Your task to perform on an android device: change timer sound Image 0: 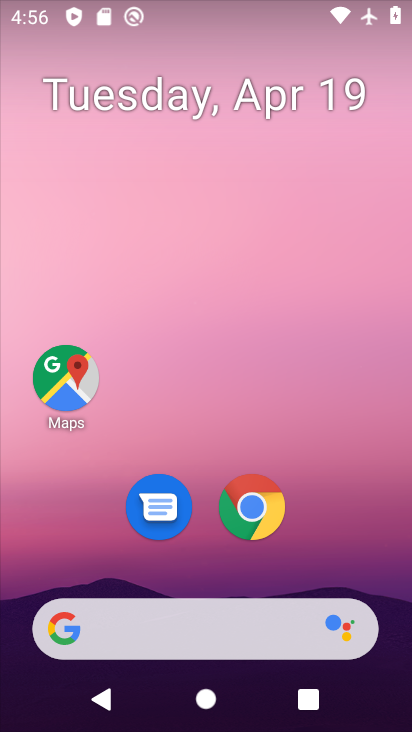
Step 0: drag from (326, 558) to (297, 125)
Your task to perform on an android device: change timer sound Image 1: 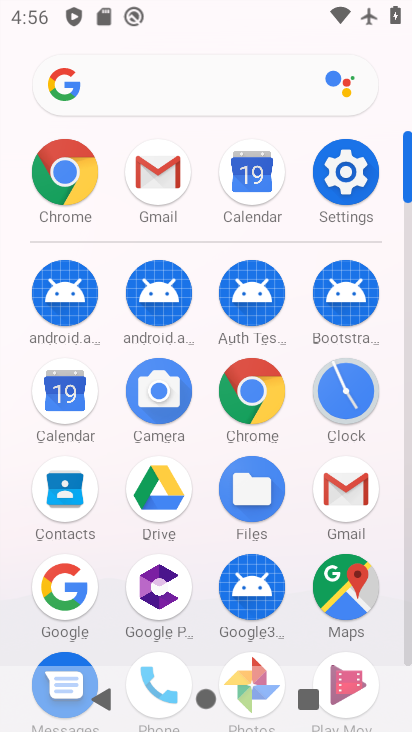
Step 1: click (330, 397)
Your task to perform on an android device: change timer sound Image 2: 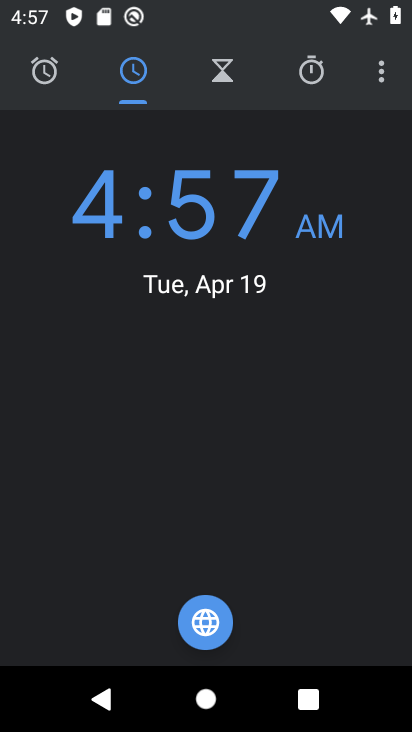
Step 2: click (378, 72)
Your task to perform on an android device: change timer sound Image 3: 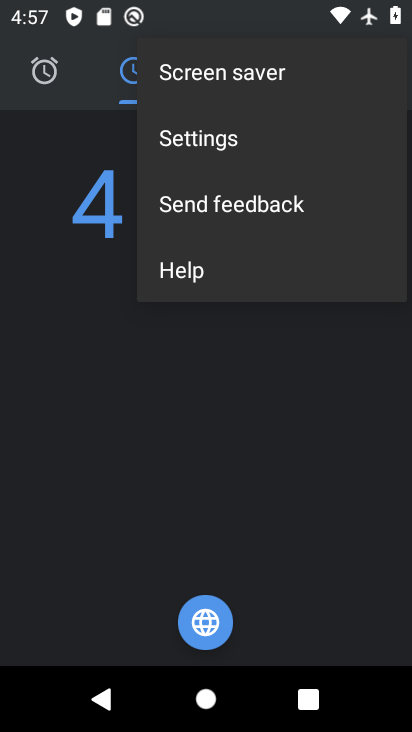
Step 3: click (197, 141)
Your task to perform on an android device: change timer sound Image 4: 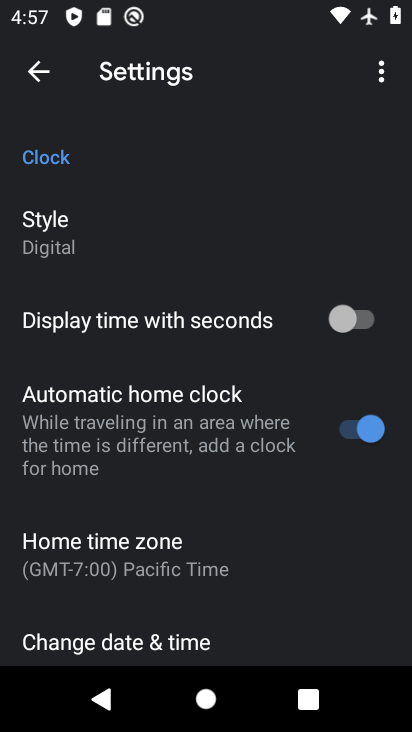
Step 4: drag from (244, 467) to (326, 121)
Your task to perform on an android device: change timer sound Image 5: 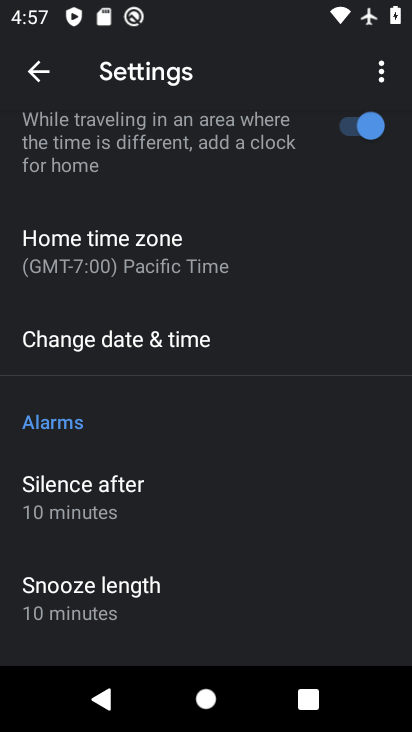
Step 5: drag from (188, 485) to (306, 235)
Your task to perform on an android device: change timer sound Image 6: 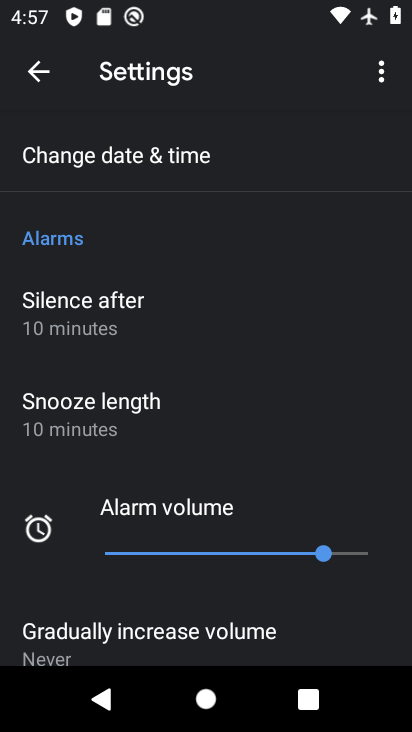
Step 6: drag from (226, 389) to (343, 176)
Your task to perform on an android device: change timer sound Image 7: 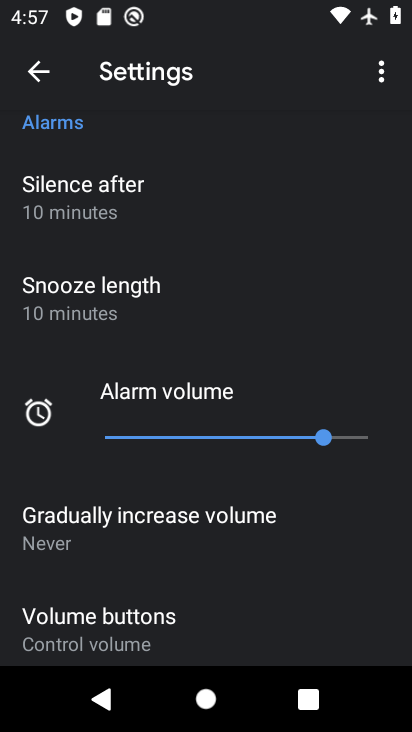
Step 7: drag from (254, 256) to (188, 460)
Your task to perform on an android device: change timer sound Image 8: 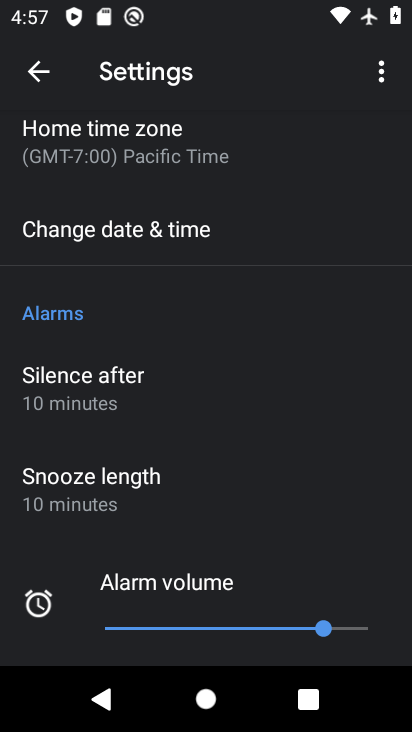
Step 8: drag from (201, 434) to (360, 121)
Your task to perform on an android device: change timer sound Image 9: 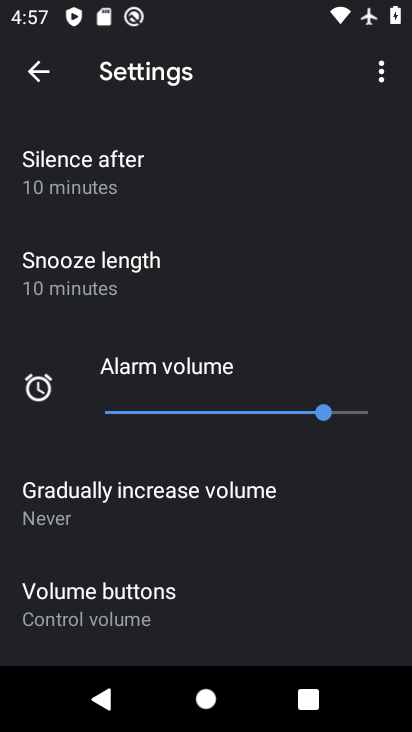
Step 9: drag from (201, 551) to (303, 190)
Your task to perform on an android device: change timer sound Image 10: 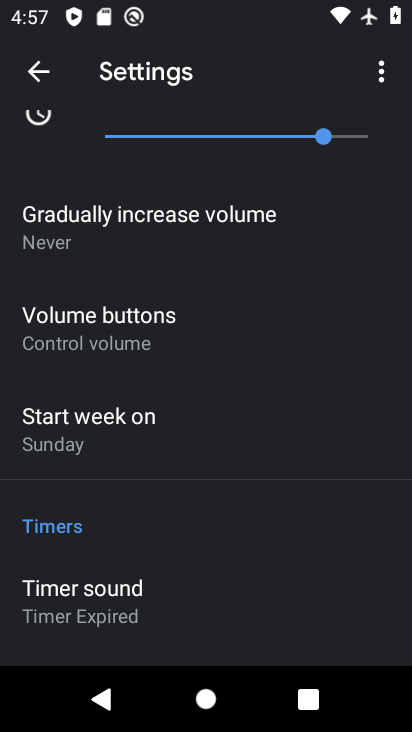
Step 10: click (109, 588)
Your task to perform on an android device: change timer sound Image 11: 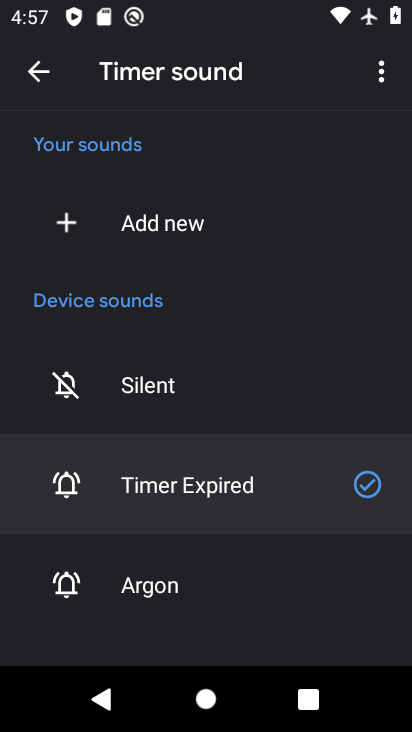
Step 11: click (137, 581)
Your task to perform on an android device: change timer sound Image 12: 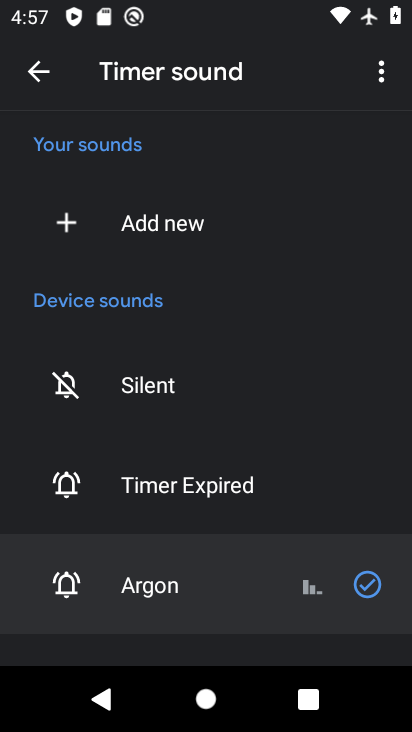
Step 12: task complete